Your task to perform on an android device: Open ESPN.com Image 0: 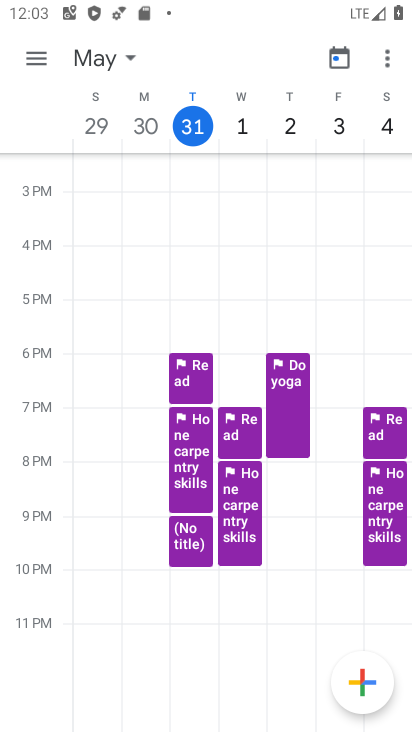
Step 0: press home button
Your task to perform on an android device: Open ESPN.com Image 1: 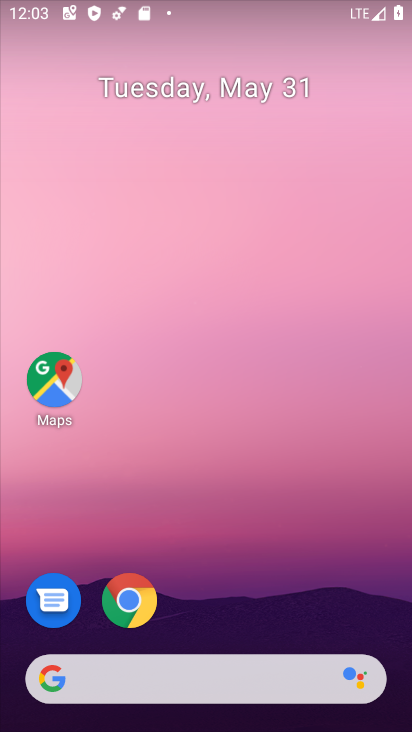
Step 1: click (125, 606)
Your task to perform on an android device: Open ESPN.com Image 2: 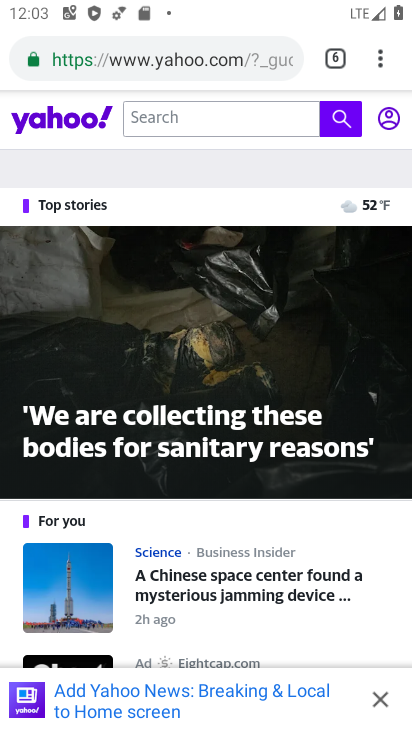
Step 2: click (383, 69)
Your task to perform on an android device: Open ESPN.com Image 3: 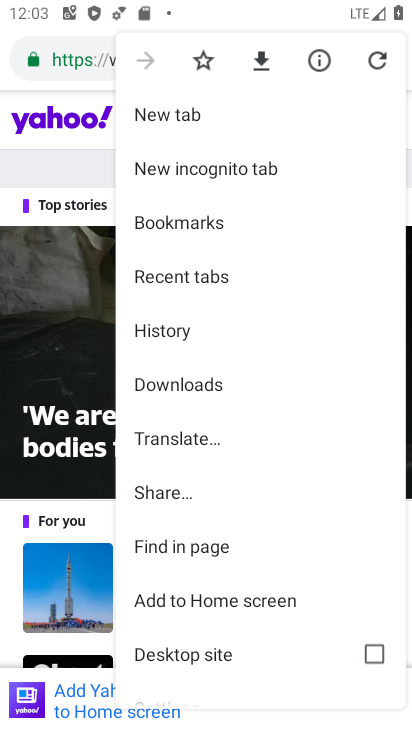
Step 3: click (172, 110)
Your task to perform on an android device: Open ESPN.com Image 4: 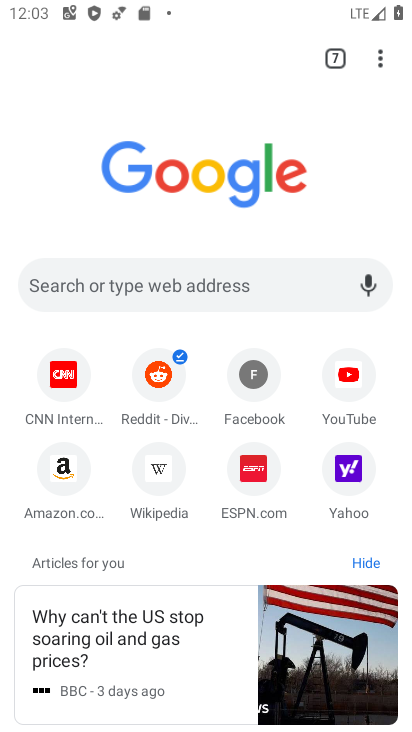
Step 4: click (252, 474)
Your task to perform on an android device: Open ESPN.com Image 5: 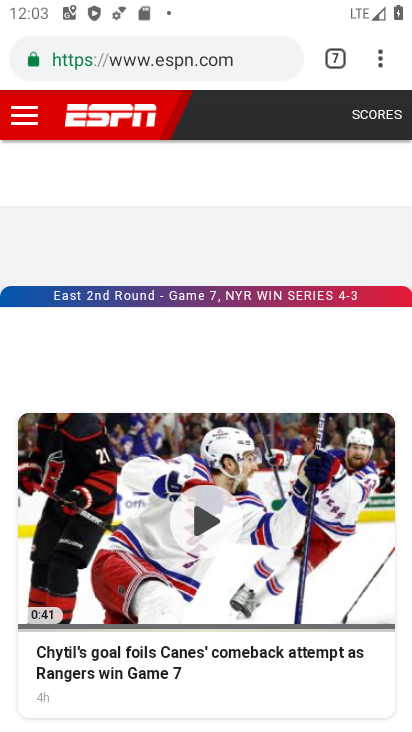
Step 5: task complete